Your task to perform on an android device: Go to Yahoo.com Image 0: 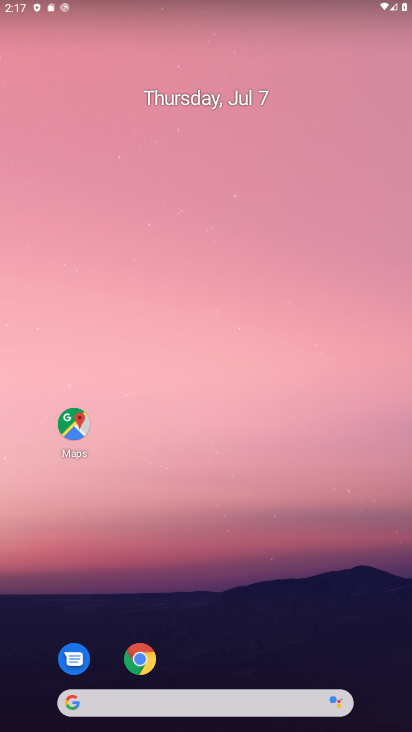
Step 0: drag from (225, 669) to (236, 75)
Your task to perform on an android device: Go to Yahoo.com Image 1: 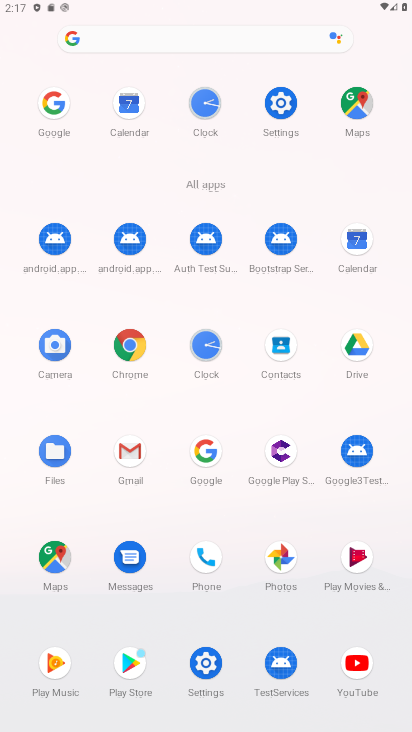
Step 1: click (128, 339)
Your task to perform on an android device: Go to Yahoo.com Image 2: 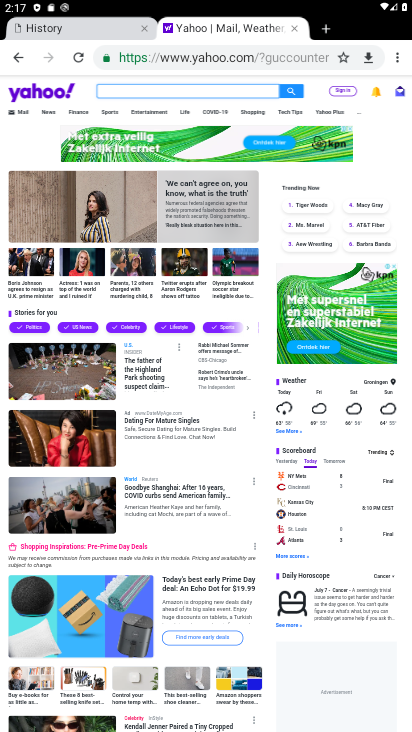
Step 2: task complete